Your task to perform on an android device: delete the emails in spam in the gmail app Image 0: 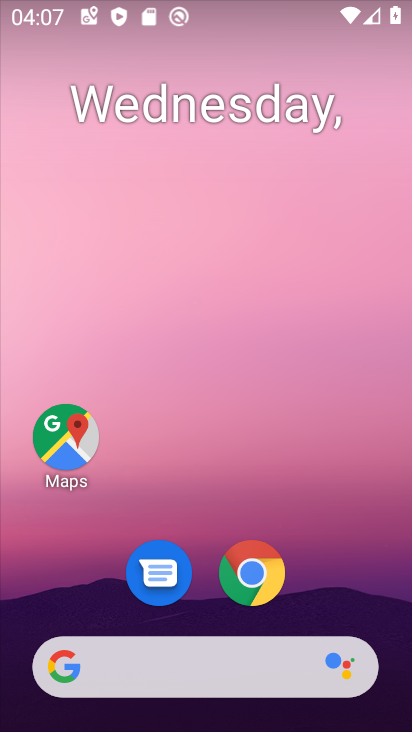
Step 0: drag from (325, 587) to (324, 68)
Your task to perform on an android device: delete the emails in spam in the gmail app Image 1: 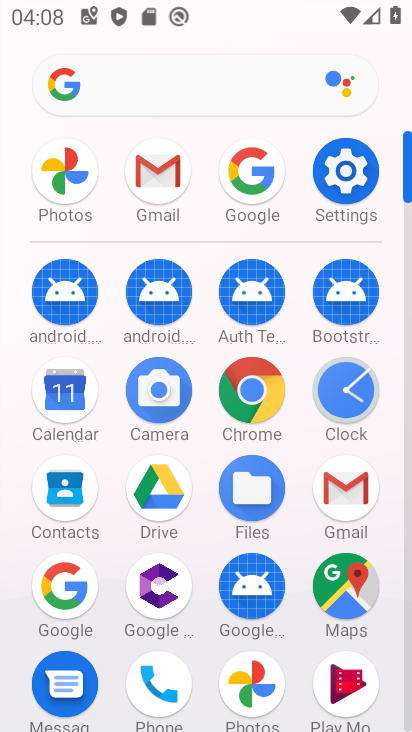
Step 1: click (155, 179)
Your task to perform on an android device: delete the emails in spam in the gmail app Image 2: 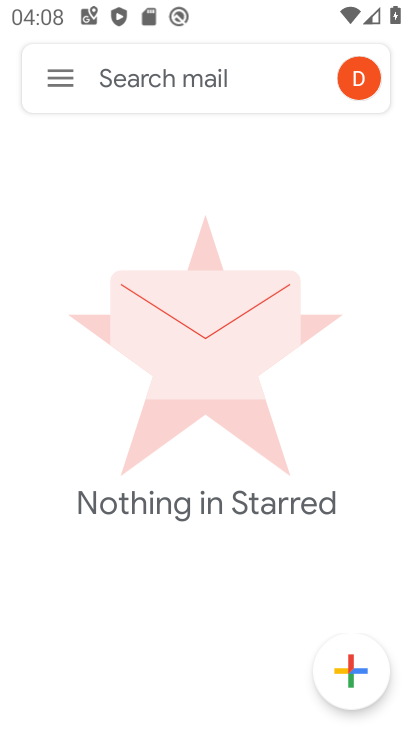
Step 2: click (62, 77)
Your task to perform on an android device: delete the emails in spam in the gmail app Image 3: 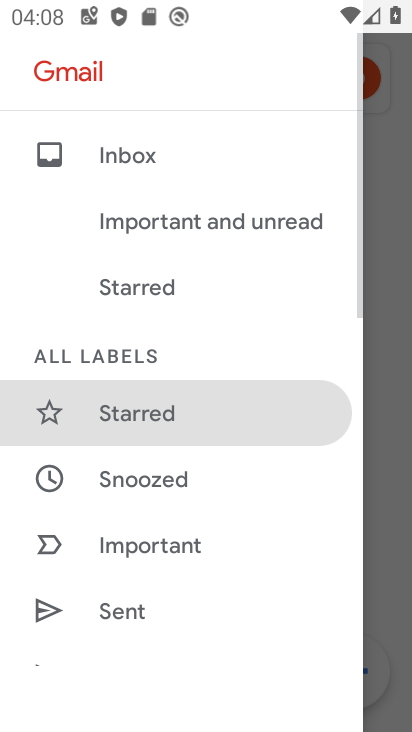
Step 3: drag from (143, 534) to (199, 288)
Your task to perform on an android device: delete the emails in spam in the gmail app Image 4: 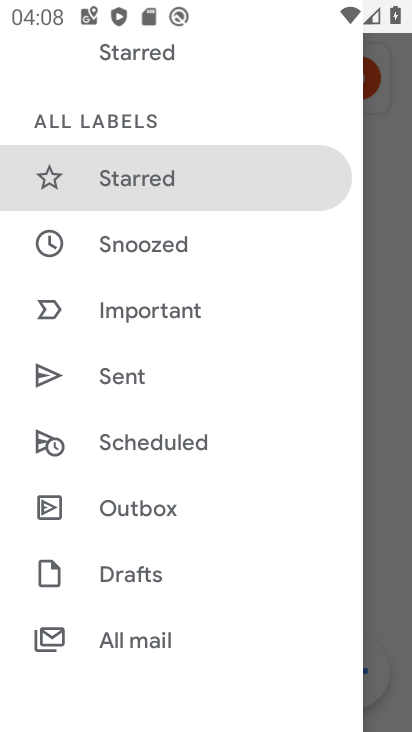
Step 4: drag from (161, 527) to (206, 398)
Your task to perform on an android device: delete the emails in spam in the gmail app Image 5: 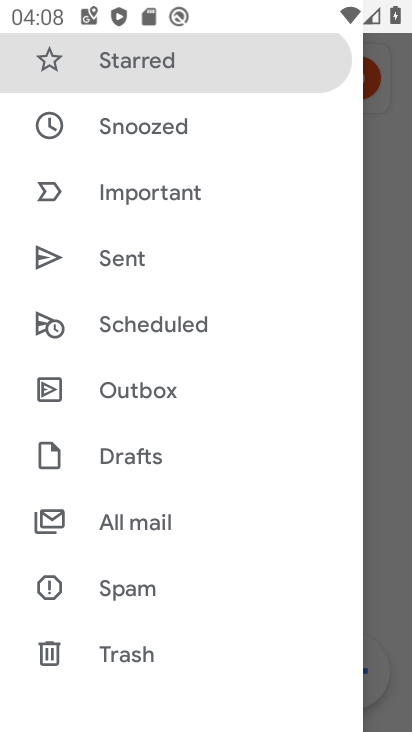
Step 5: drag from (166, 519) to (211, 375)
Your task to perform on an android device: delete the emails in spam in the gmail app Image 6: 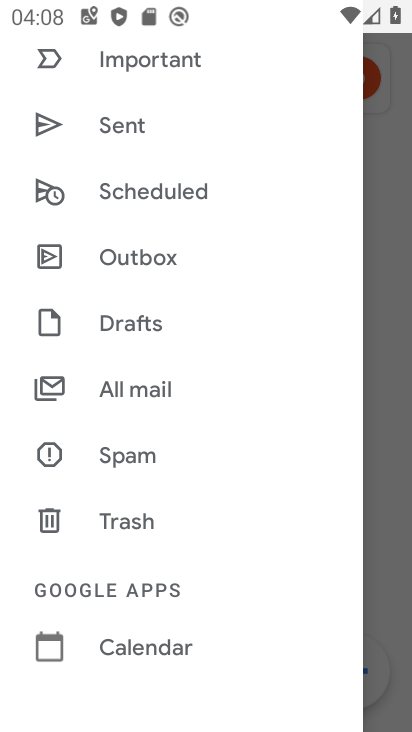
Step 6: click (139, 464)
Your task to perform on an android device: delete the emails in spam in the gmail app Image 7: 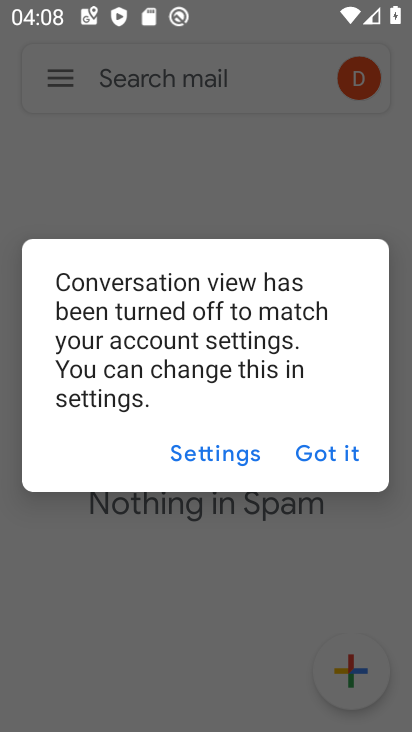
Step 7: click (310, 454)
Your task to perform on an android device: delete the emails in spam in the gmail app Image 8: 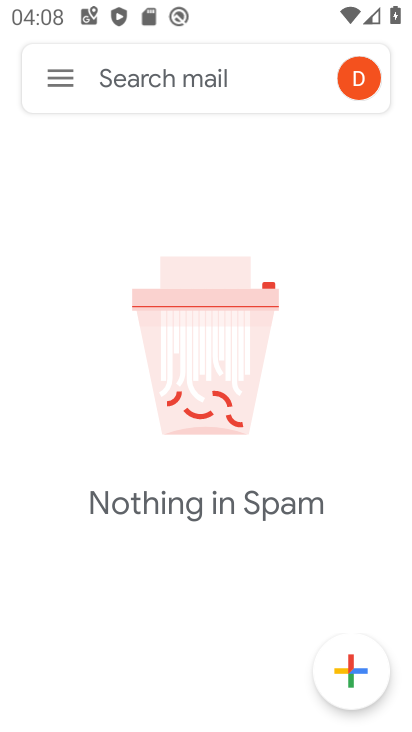
Step 8: task complete